Your task to perform on an android device: Open Google Chrome Image 0: 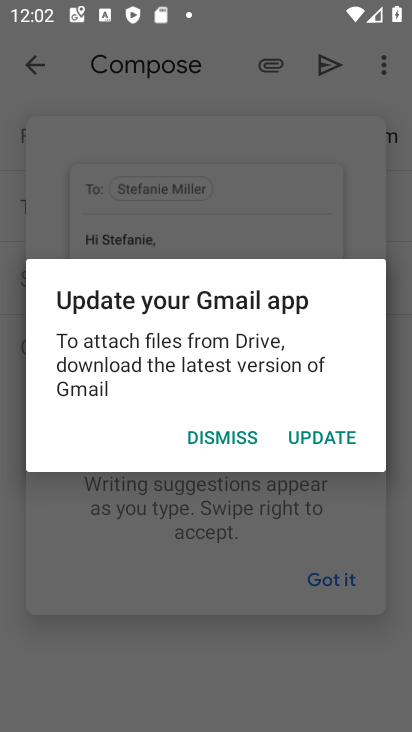
Step 0: press home button
Your task to perform on an android device: Open Google Chrome Image 1: 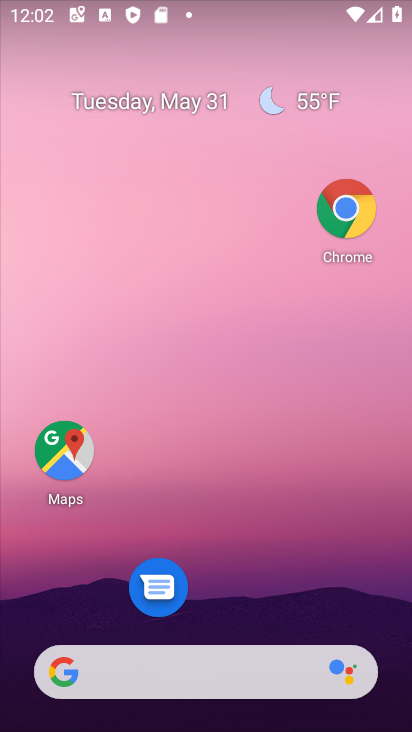
Step 1: click (335, 217)
Your task to perform on an android device: Open Google Chrome Image 2: 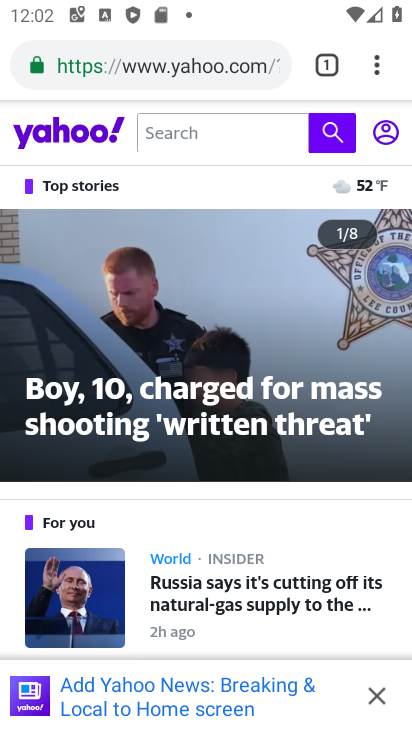
Step 2: task complete